Your task to perform on an android device: Go to internet settings Image 0: 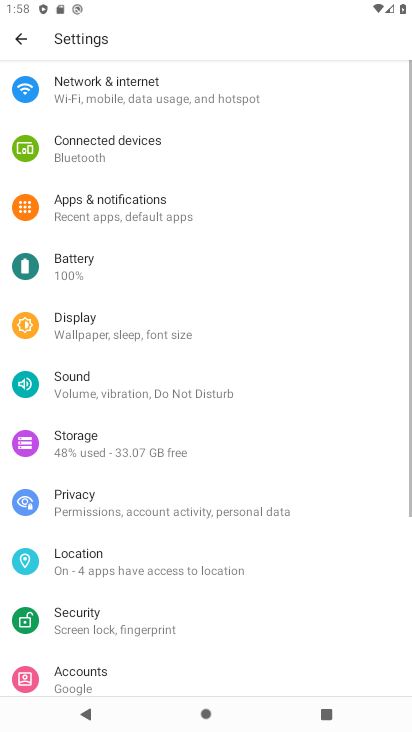
Step 0: click (142, 95)
Your task to perform on an android device: Go to internet settings Image 1: 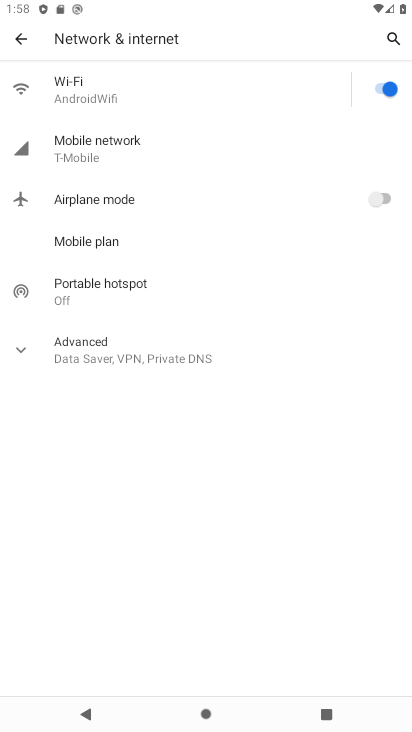
Step 1: click (17, 90)
Your task to perform on an android device: Go to internet settings Image 2: 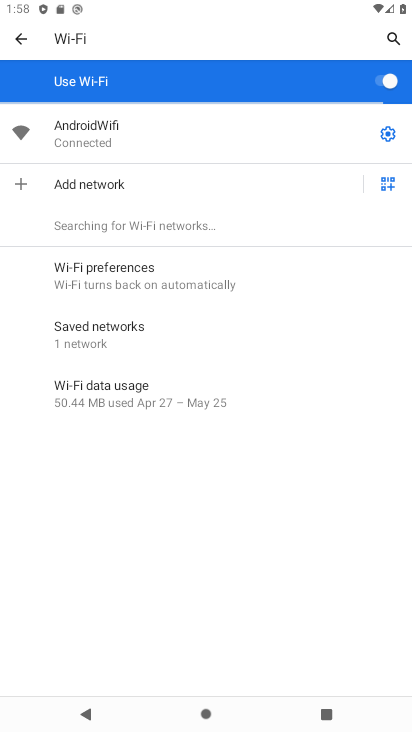
Step 2: task complete